Your task to perform on an android device: Is it going to rain this weekend? Image 0: 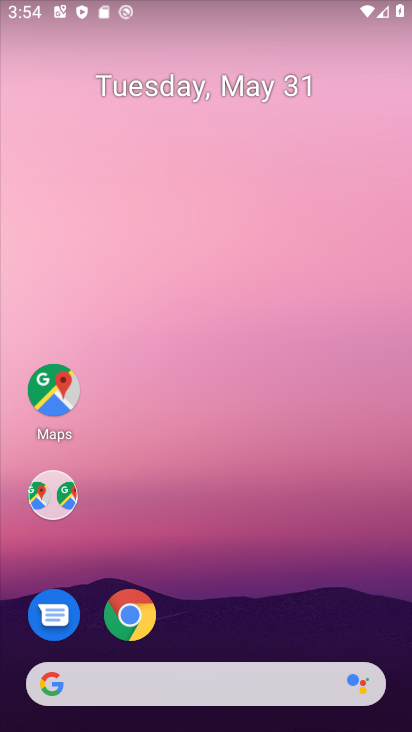
Step 0: drag from (4, 211) to (396, 392)
Your task to perform on an android device: Is it going to rain this weekend? Image 1: 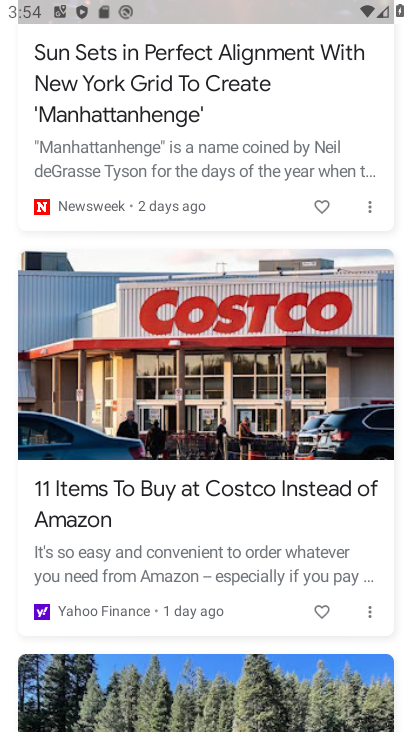
Step 1: drag from (155, 140) to (237, 414)
Your task to perform on an android device: Is it going to rain this weekend? Image 2: 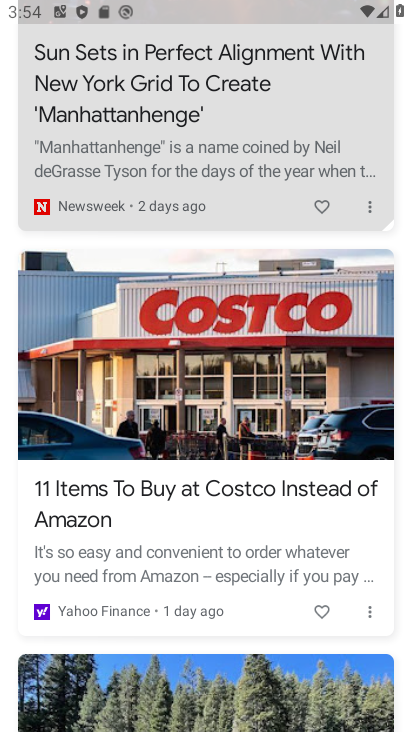
Step 2: drag from (167, 182) to (165, 572)
Your task to perform on an android device: Is it going to rain this weekend? Image 3: 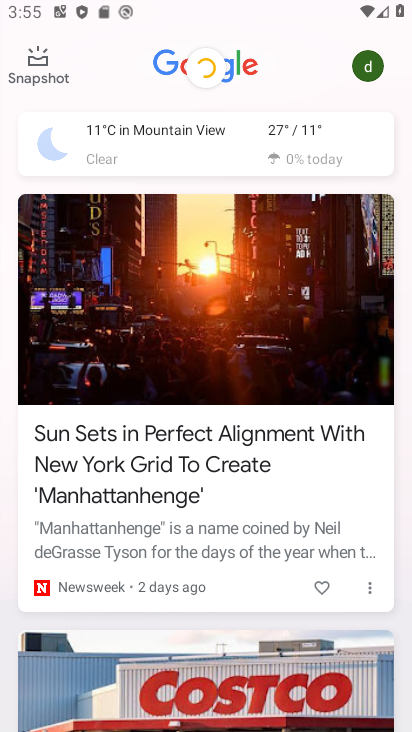
Step 3: click (180, 150)
Your task to perform on an android device: Is it going to rain this weekend? Image 4: 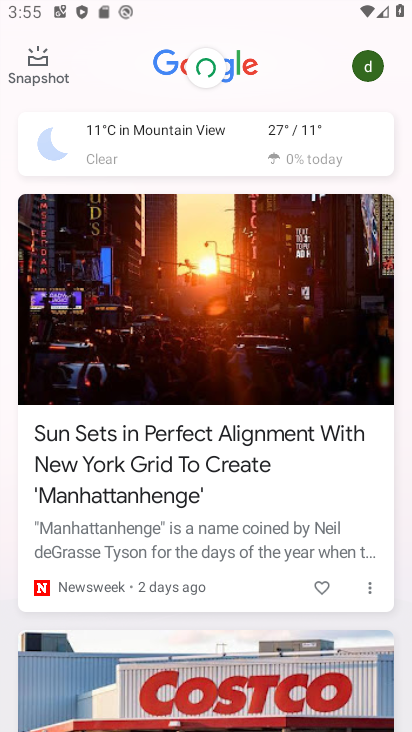
Step 4: click (187, 148)
Your task to perform on an android device: Is it going to rain this weekend? Image 5: 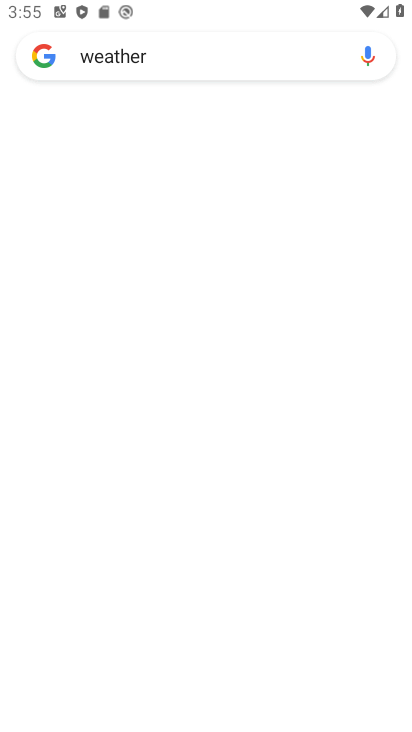
Step 5: click (215, 138)
Your task to perform on an android device: Is it going to rain this weekend? Image 6: 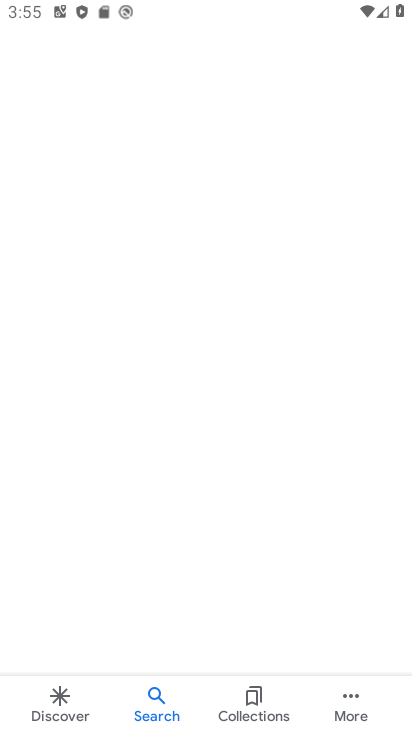
Step 6: click (215, 143)
Your task to perform on an android device: Is it going to rain this weekend? Image 7: 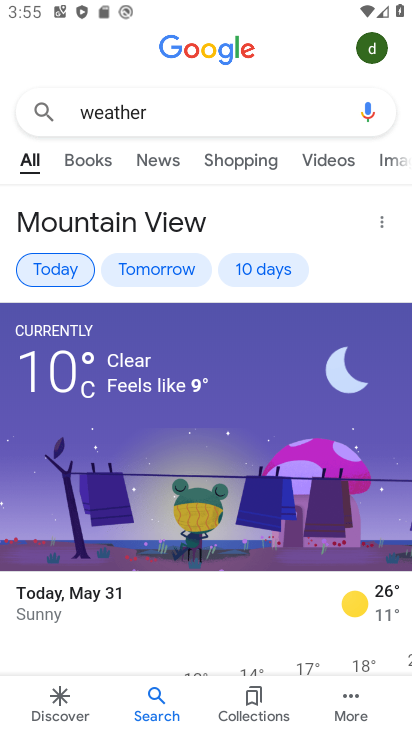
Step 7: task complete